Your task to perform on an android device: Open the web browser Image 0: 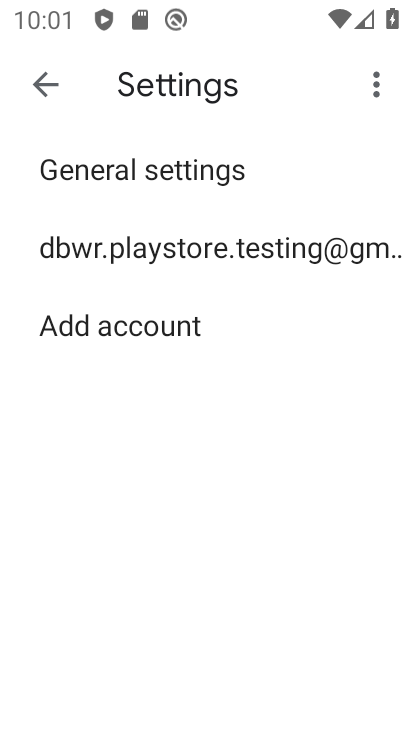
Step 0: press home button
Your task to perform on an android device: Open the web browser Image 1: 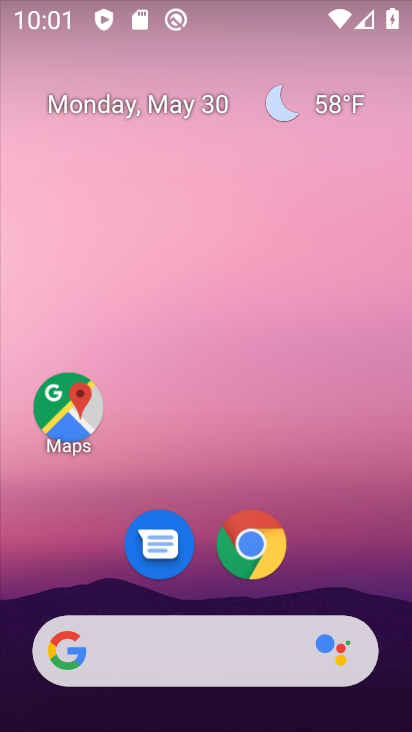
Step 1: click (268, 555)
Your task to perform on an android device: Open the web browser Image 2: 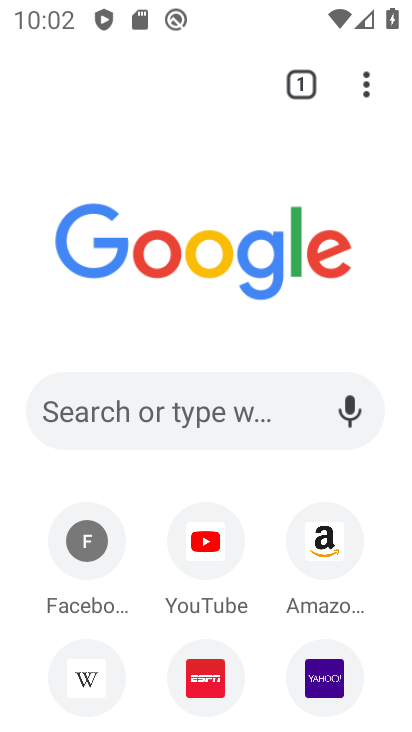
Step 2: task complete